Your task to perform on an android device: Go to internet settings Image 0: 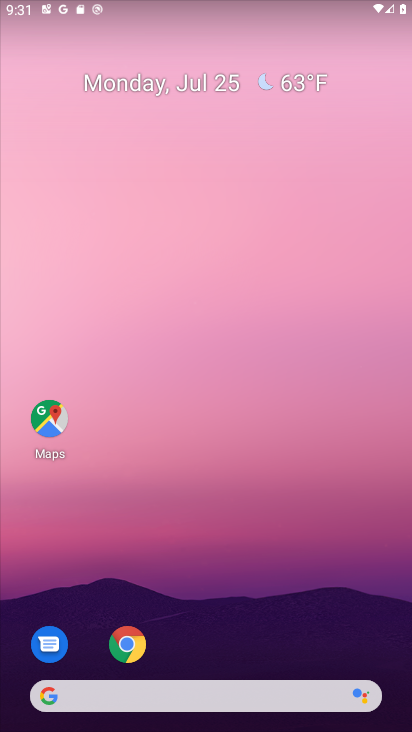
Step 0: drag from (295, 695) to (321, 219)
Your task to perform on an android device: Go to internet settings Image 1: 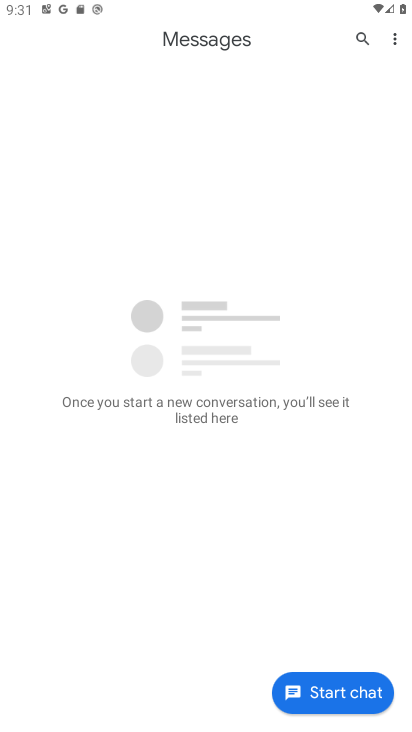
Step 1: press back button
Your task to perform on an android device: Go to internet settings Image 2: 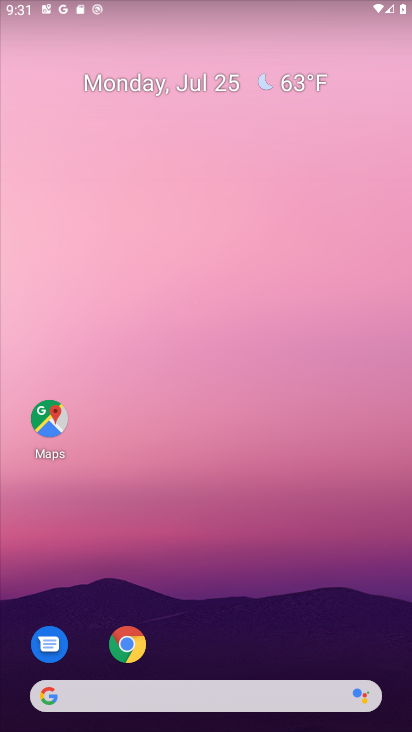
Step 2: drag from (224, 381) to (230, 8)
Your task to perform on an android device: Go to internet settings Image 3: 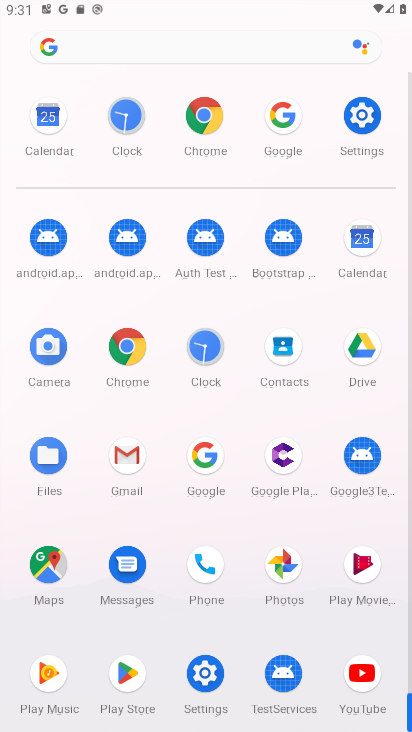
Step 3: click (352, 111)
Your task to perform on an android device: Go to internet settings Image 4: 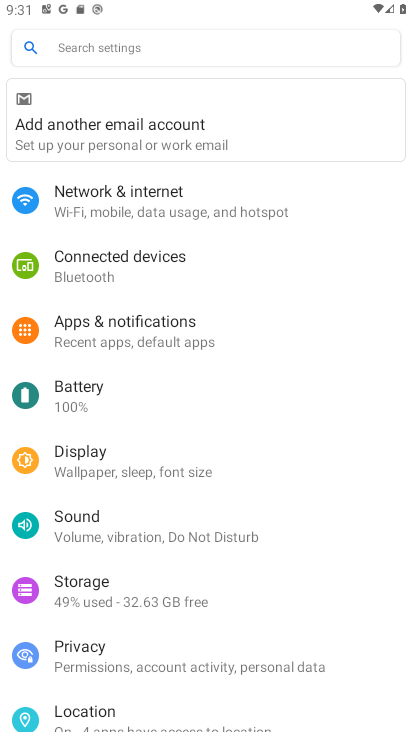
Step 4: click (136, 198)
Your task to perform on an android device: Go to internet settings Image 5: 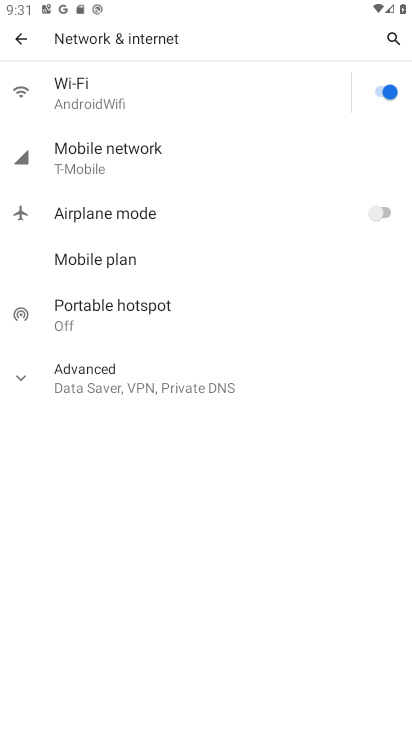
Step 5: task complete